Your task to perform on an android device: turn off sleep mode Image 0: 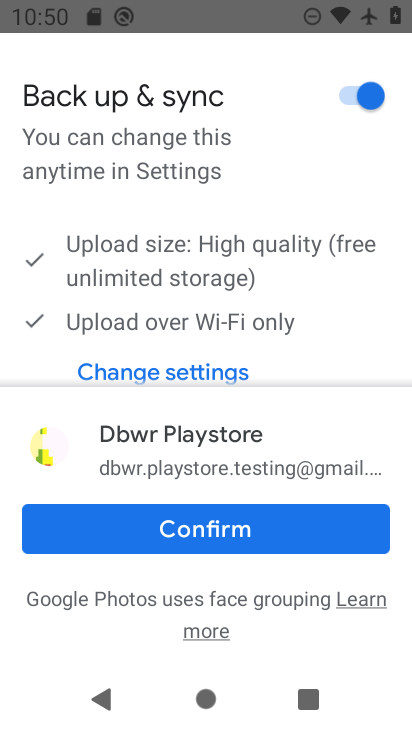
Step 0: press back button
Your task to perform on an android device: turn off sleep mode Image 1: 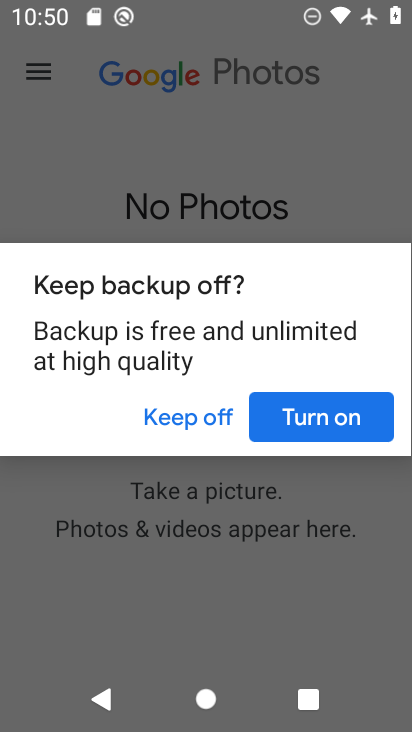
Step 1: press back button
Your task to perform on an android device: turn off sleep mode Image 2: 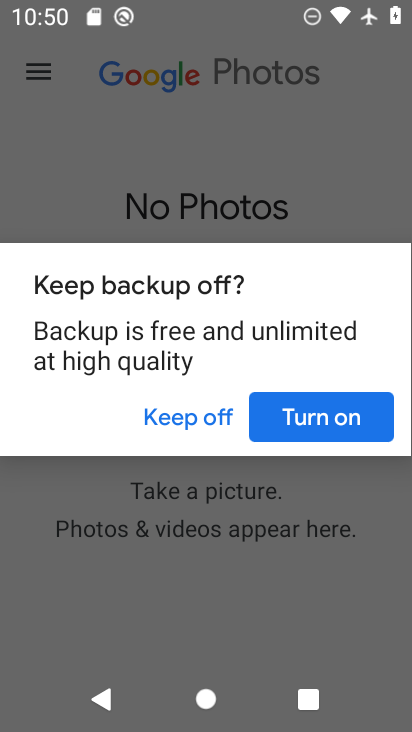
Step 2: press back button
Your task to perform on an android device: turn off sleep mode Image 3: 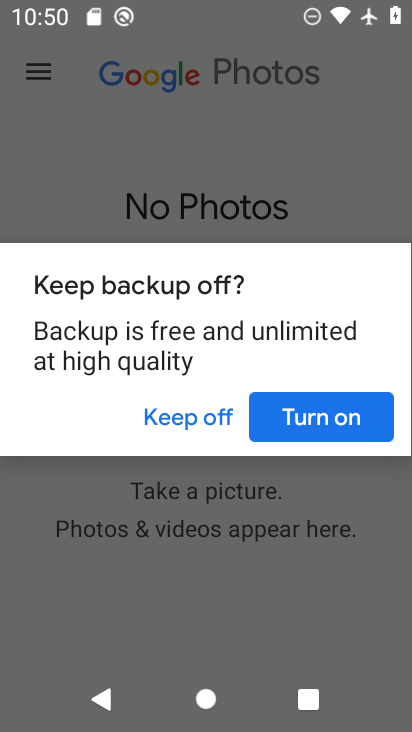
Step 3: press home button
Your task to perform on an android device: turn off sleep mode Image 4: 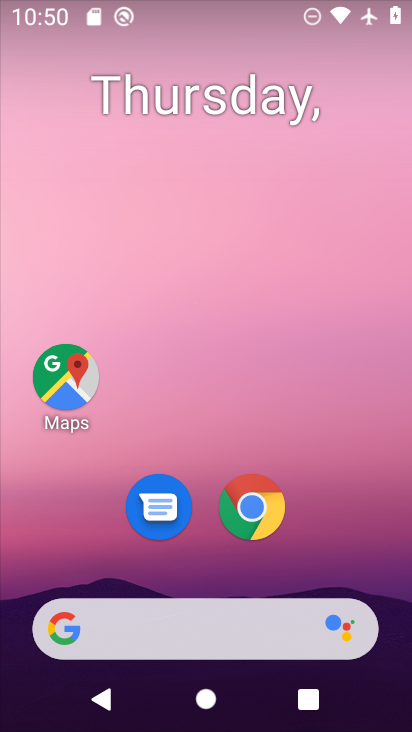
Step 4: drag from (348, 557) to (311, 41)
Your task to perform on an android device: turn off sleep mode Image 5: 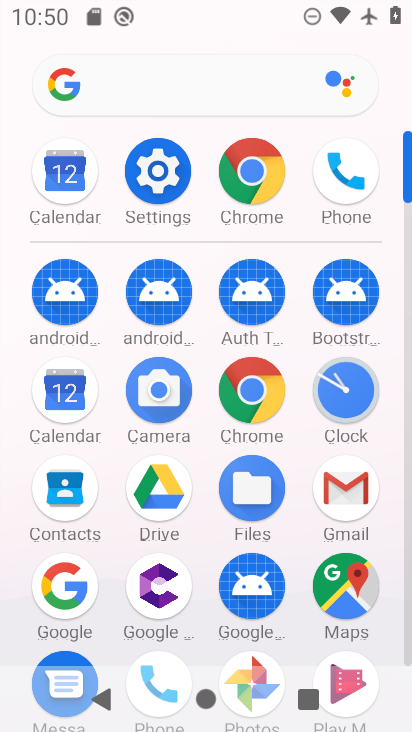
Step 5: click (160, 171)
Your task to perform on an android device: turn off sleep mode Image 6: 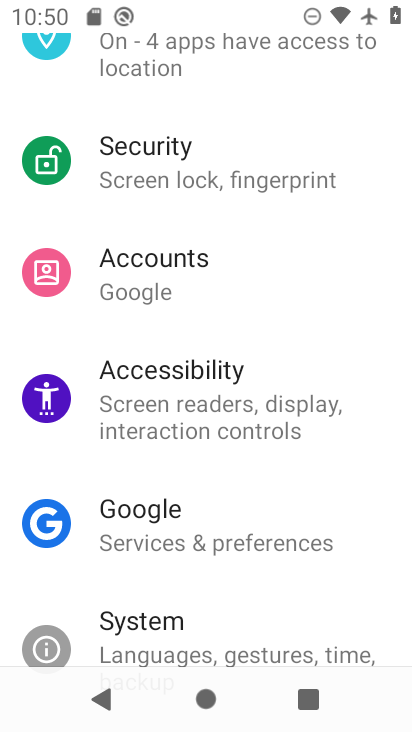
Step 6: drag from (294, 138) to (284, 611)
Your task to perform on an android device: turn off sleep mode Image 7: 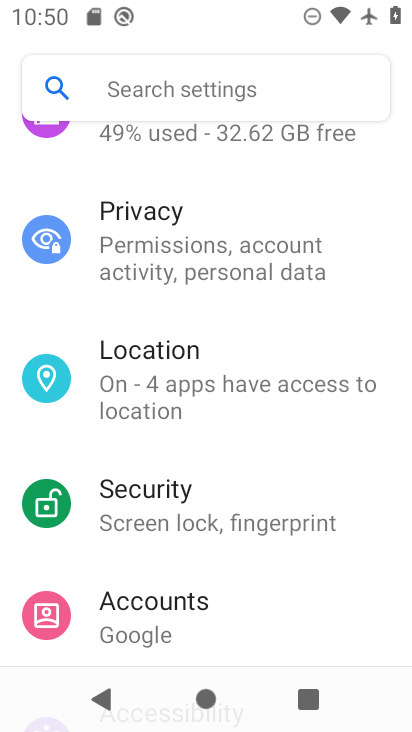
Step 7: drag from (263, 274) to (279, 624)
Your task to perform on an android device: turn off sleep mode Image 8: 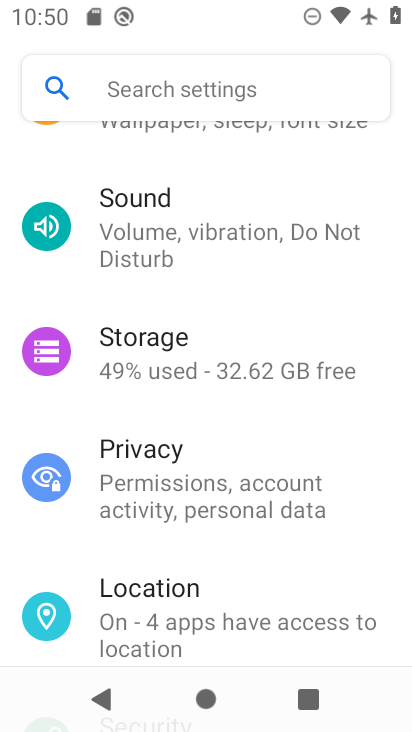
Step 8: drag from (263, 290) to (260, 622)
Your task to perform on an android device: turn off sleep mode Image 9: 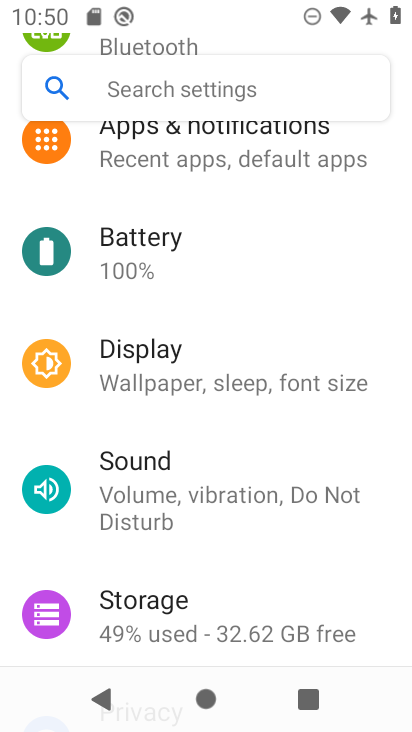
Step 9: click (224, 370)
Your task to perform on an android device: turn off sleep mode Image 10: 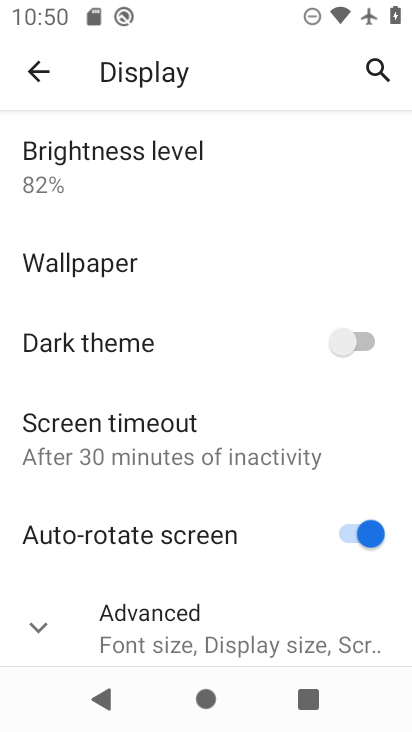
Step 10: click (39, 617)
Your task to perform on an android device: turn off sleep mode Image 11: 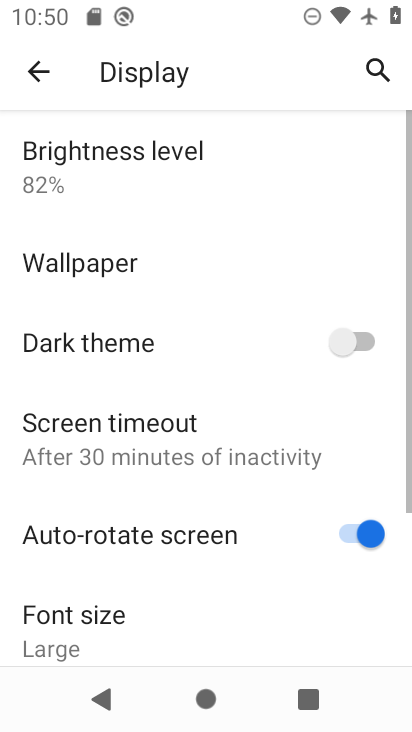
Step 11: task complete